Your task to perform on an android device: delete browsing data in the chrome app Image 0: 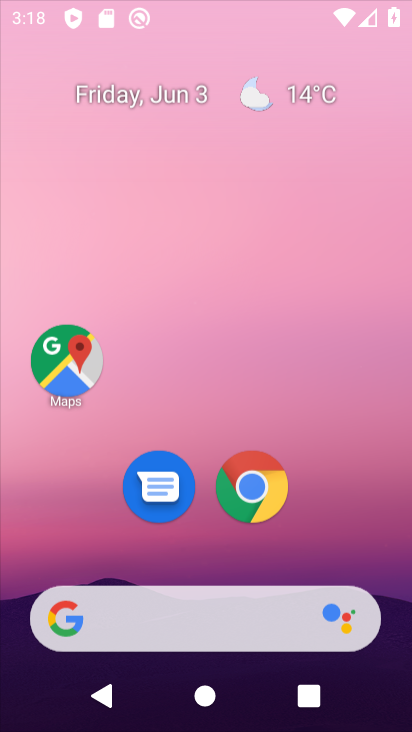
Step 0: click (272, 139)
Your task to perform on an android device: delete browsing data in the chrome app Image 1: 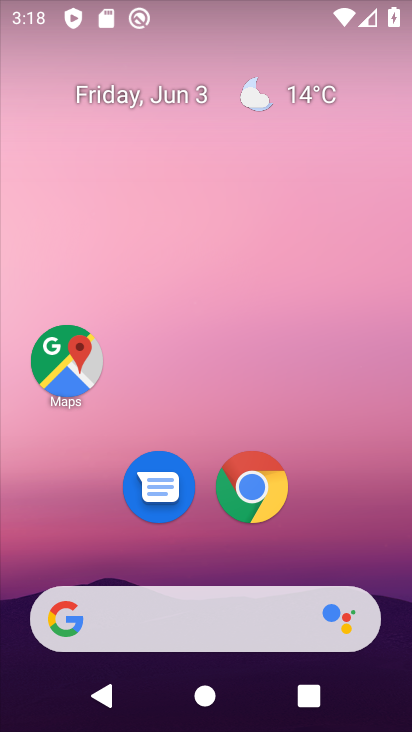
Step 1: click (243, 484)
Your task to perform on an android device: delete browsing data in the chrome app Image 2: 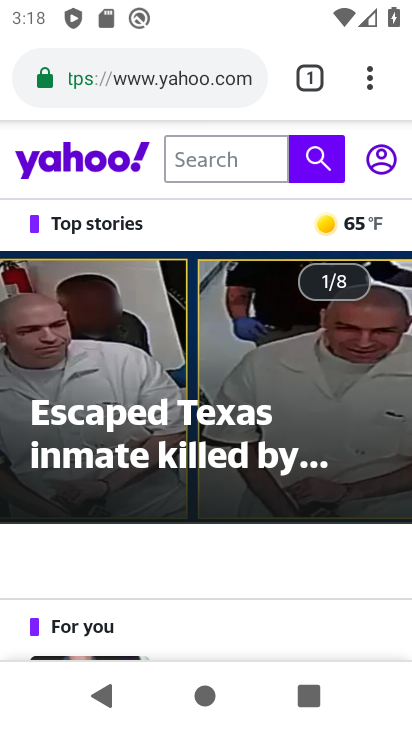
Step 2: drag from (365, 70) to (81, 439)
Your task to perform on an android device: delete browsing data in the chrome app Image 3: 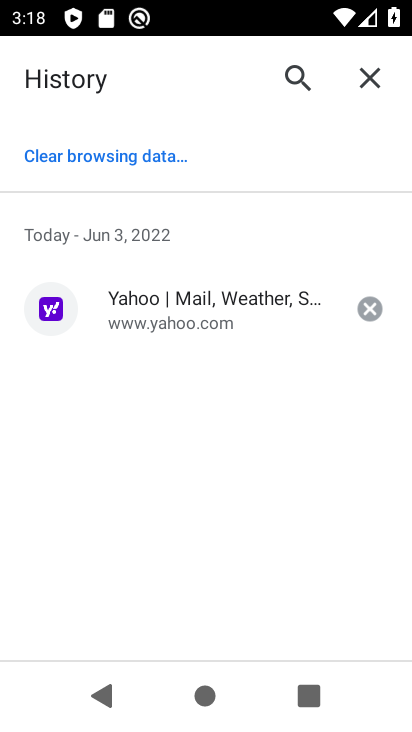
Step 3: click (115, 160)
Your task to perform on an android device: delete browsing data in the chrome app Image 4: 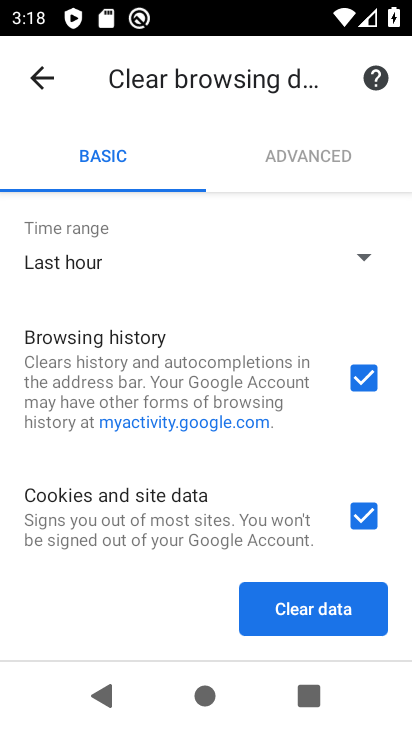
Step 4: drag from (202, 508) to (237, 221)
Your task to perform on an android device: delete browsing data in the chrome app Image 5: 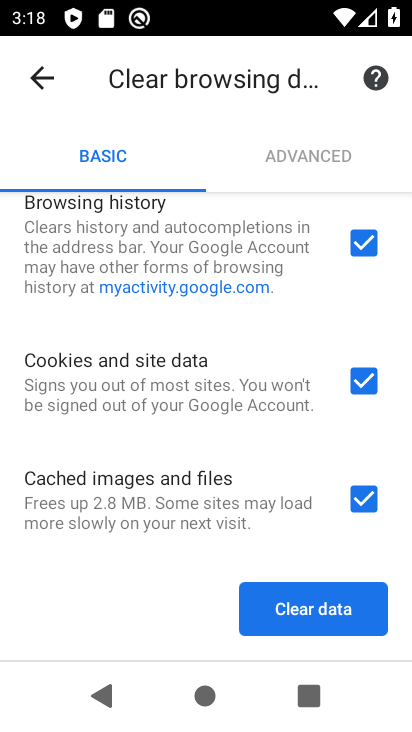
Step 5: click (298, 616)
Your task to perform on an android device: delete browsing data in the chrome app Image 6: 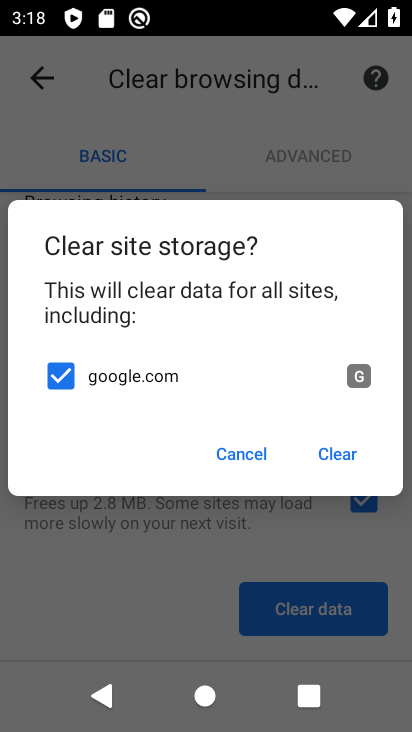
Step 6: click (330, 455)
Your task to perform on an android device: delete browsing data in the chrome app Image 7: 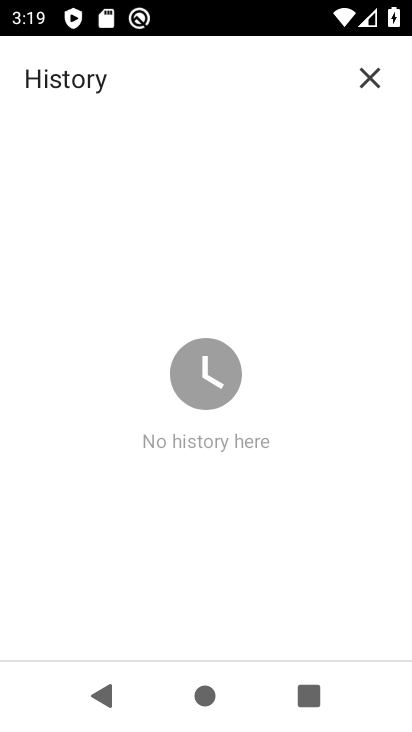
Step 7: task complete